Your task to perform on an android device: turn off improve location accuracy Image 0: 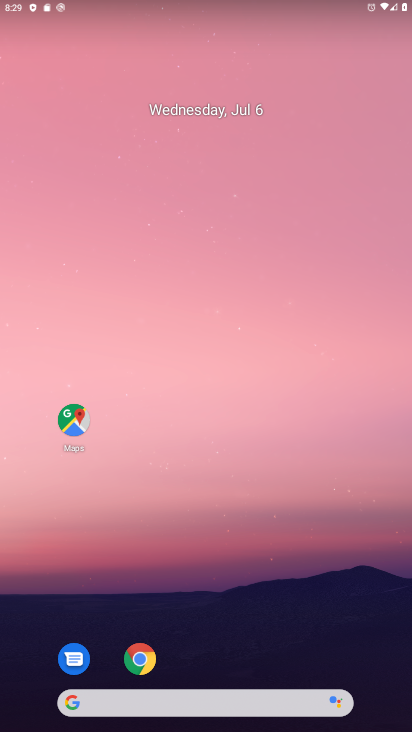
Step 0: drag from (205, 715) to (205, 218)
Your task to perform on an android device: turn off improve location accuracy Image 1: 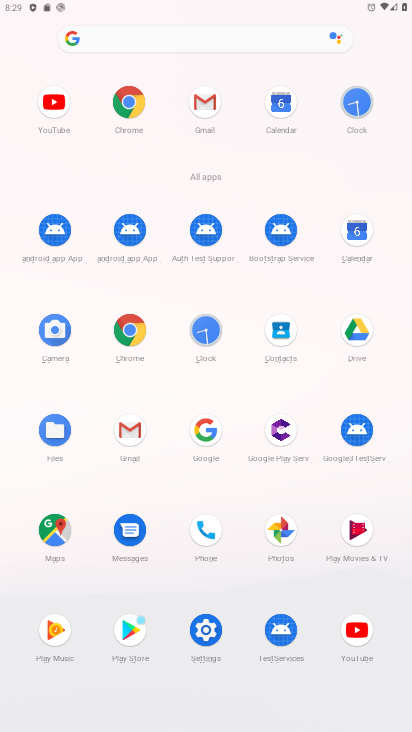
Step 1: click (213, 629)
Your task to perform on an android device: turn off improve location accuracy Image 2: 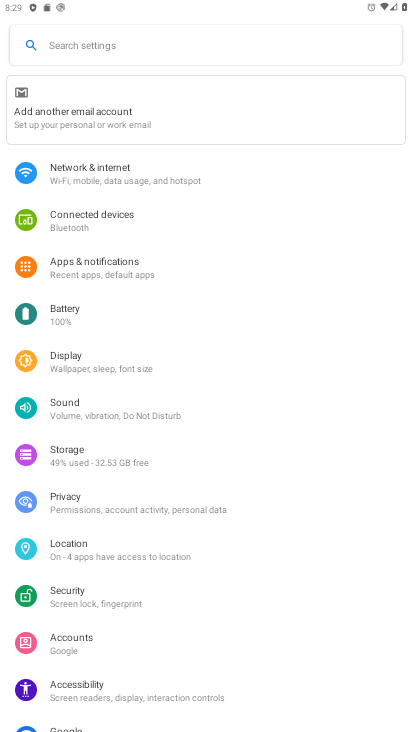
Step 2: click (91, 545)
Your task to perform on an android device: turn off improve location accuracy Image 3: 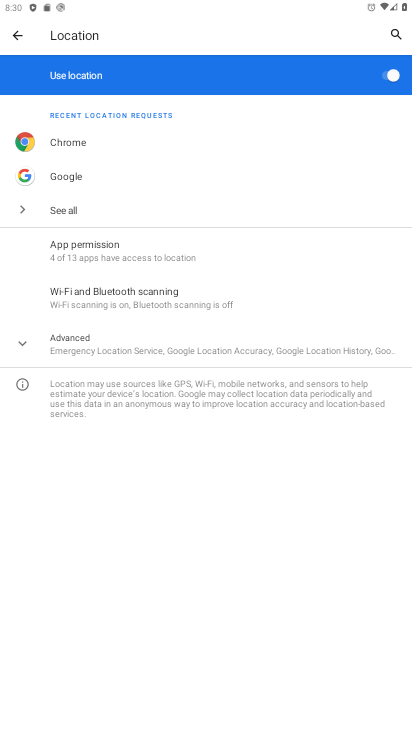
Step 3: click (98, 337)
Your task to perform on an android device: turn off improve location accuracy Image 4: 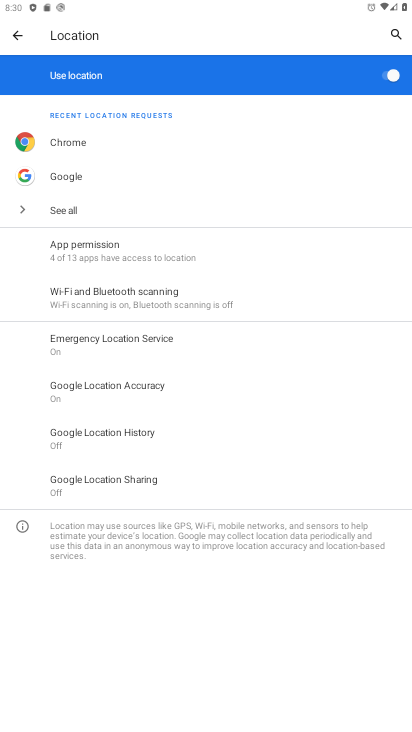
Step 4: click (120, 395)
Your task to perform on an android device: turn off improve location accuracy Image 5: 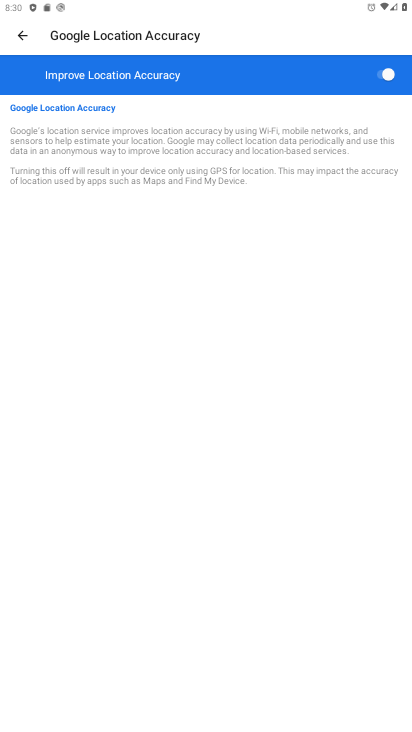
Step 5: click (379, 75)
Your task to perform on an android device: turn off improve location accuracy Image 6: 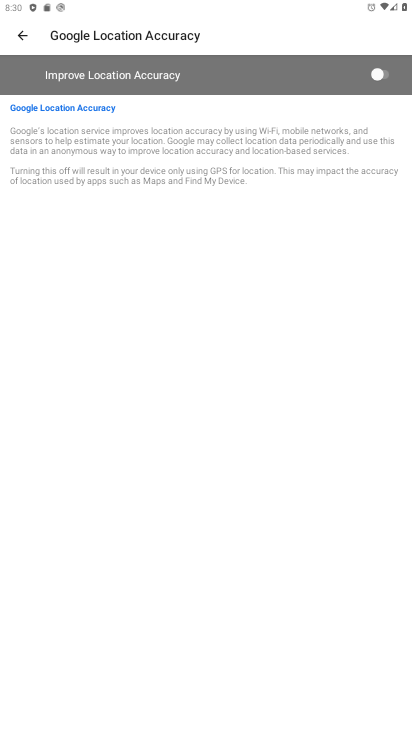
Step 6: task complete